Your task to perform on an android device: Go to sound settings Image 0: 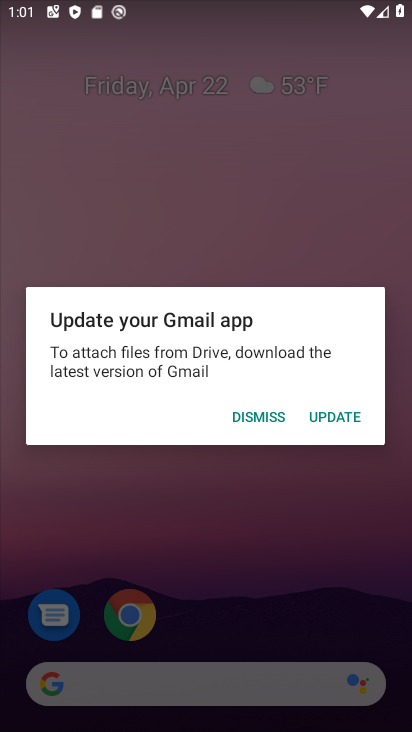
Step 0: press home button
Your task to perform on an android device: Go to sound settings Image 1: 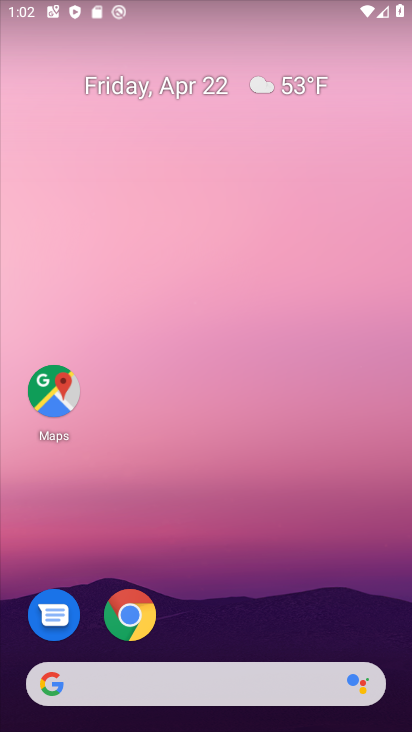
Step 1: drag from (329, 634) to (361, 21)
Your task to perform on an android device: Go to sound settings Image 2: 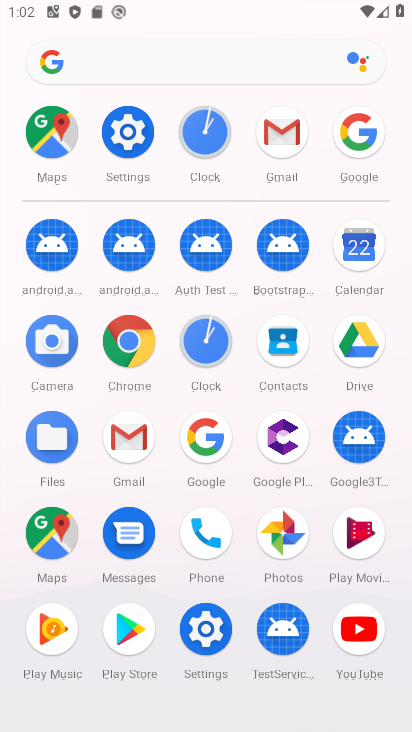
Step 2: click (127, 137)
Your task to perform on an android device: Go to sound settings Image 3: 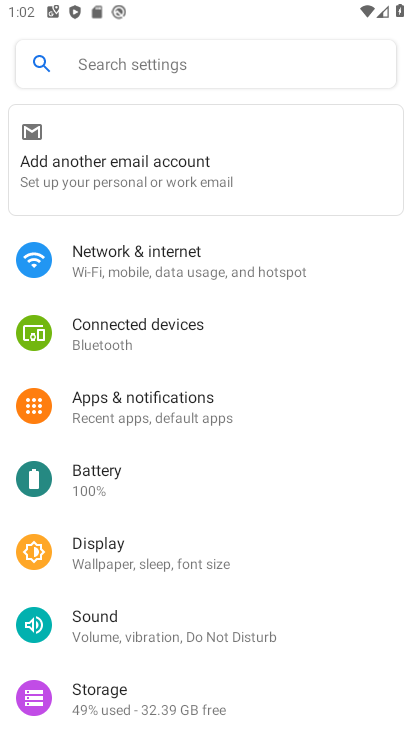
Step 3: click (93, 624)
Your task to perform on an android device: Go to sound settings Image 4: 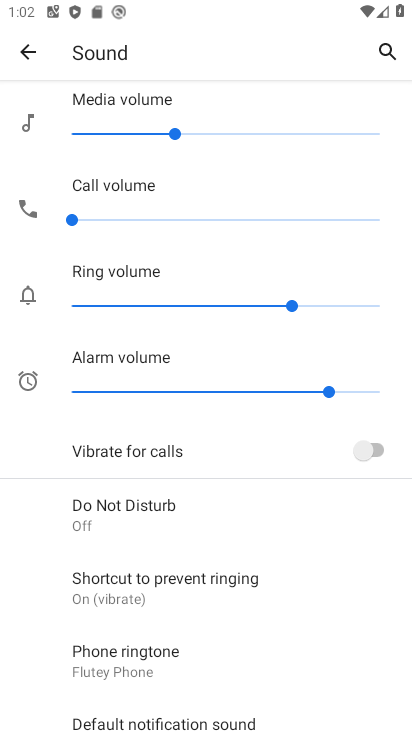
Step 4: task complete